Your task to perform on an android device: change the clock style Image 0: 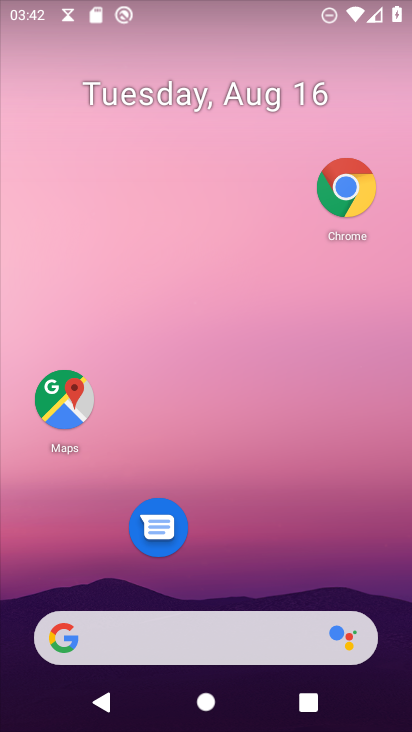
Step 0: press home button
Your task to perform on an android device: change the clock style Image 1: 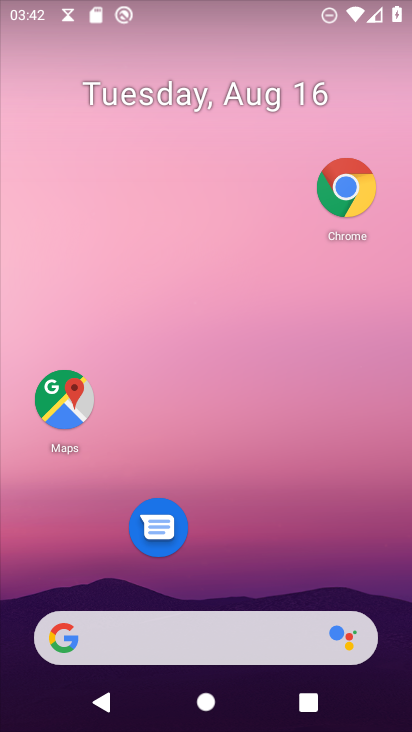
Step 1: drag from (222, 586) to (219, 31)
Your task to perform on an android device: change the clock style Image 2: 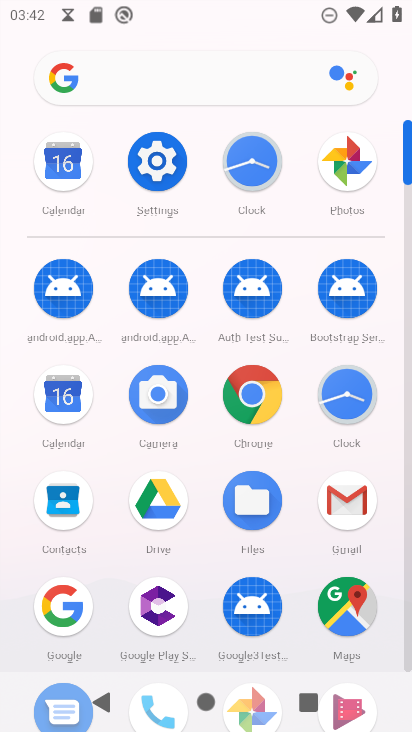
Step 2: click (249, 154)
Your task to perform on an android device: change the clock style Image 3: 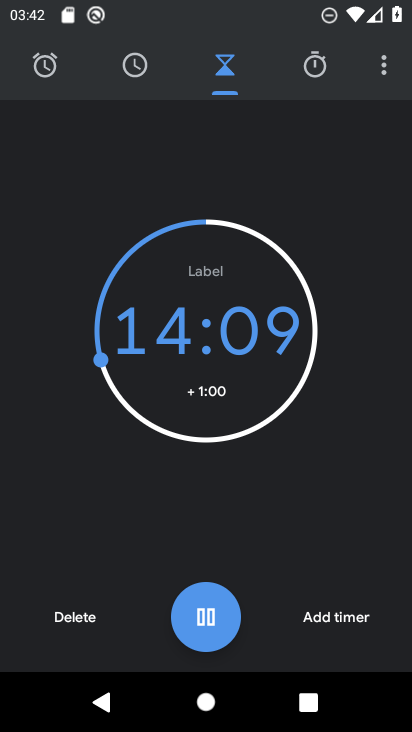
Step 3: click (386, 70)
Your task to perform on an android device: change the clock style Image 4: 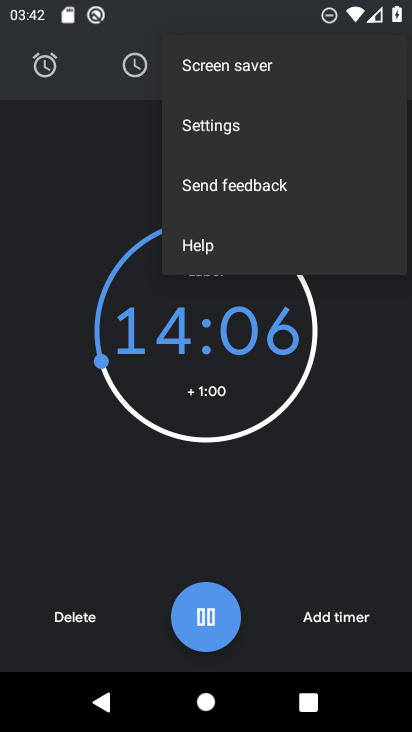
Step 4: click (244, 124)
Your task to perform on an android device: change the clock style Image 5: 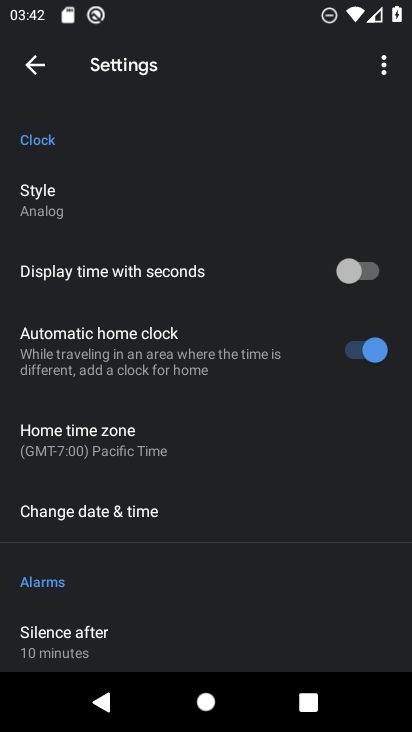
Step 5: click (90, 198)
Your task to perform on an android device: change the clock style Image 6: 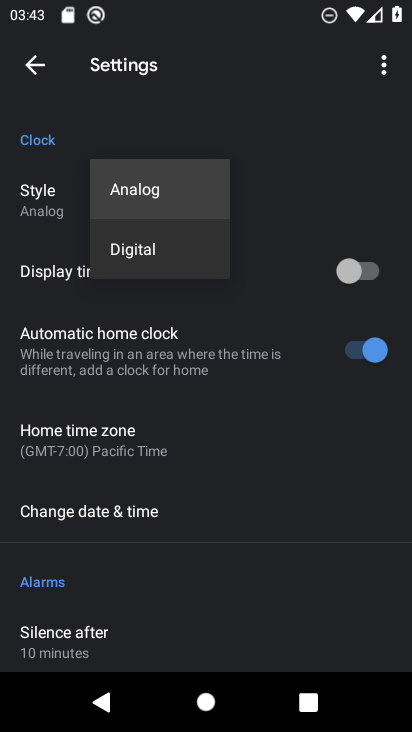
Step 6: click (163, 246)
Your task to perform on an android device: change the clock style Image 7: 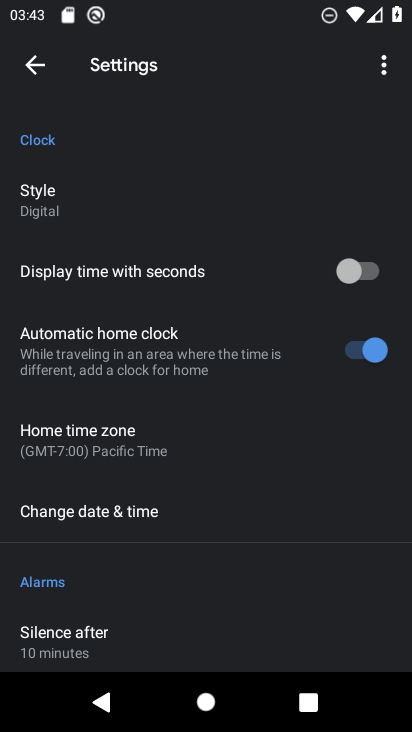
Step 7: task complete